Your task to perform on an android device: turn off smart reply in the gmail app Image 0: 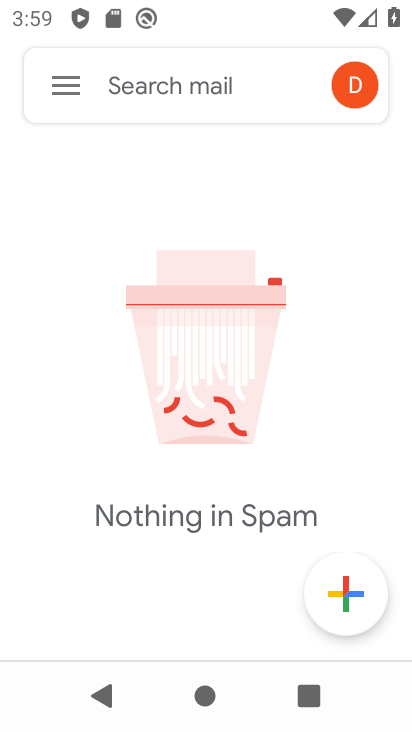
Step 0: press home button
Your task to perform on an android device: turn off smart reply in the gmail app Image 1: 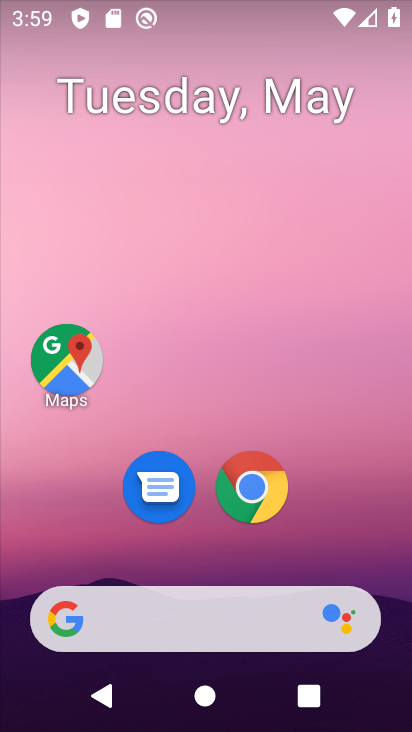
Step 1: drag from (310, 539) to (324, 142)
Your task to perform on an android device: turn off smart reply in the gmail app Image 2: 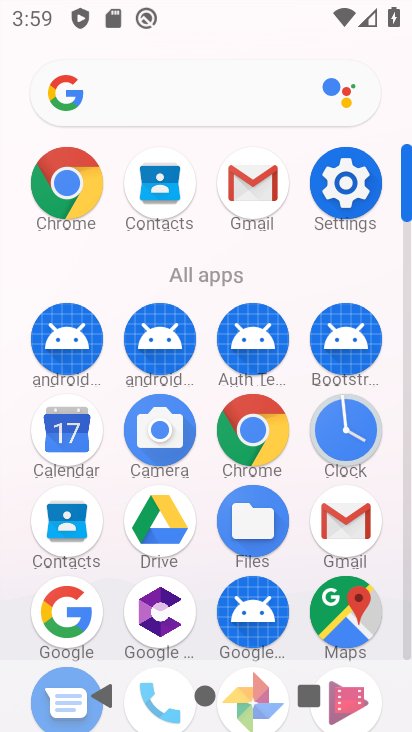
Step 2: click (242, 197)
Your task to perform on an android device: turn off smart reply in the gmail app Image 3: 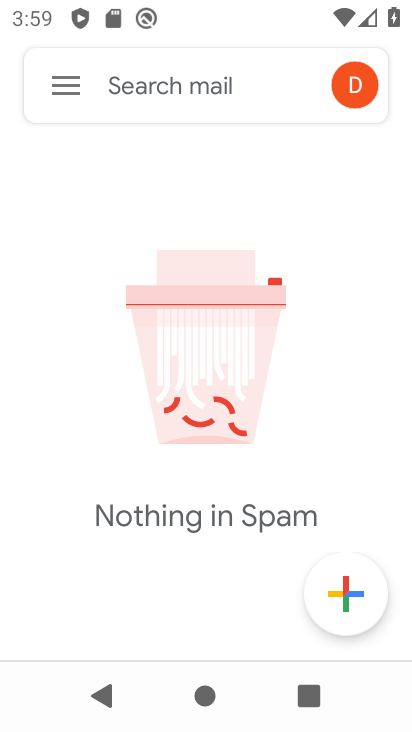
Step 3: click (60, 91)
Your task to perform on an android device: turn off smart reply in the gmail app Image 4: 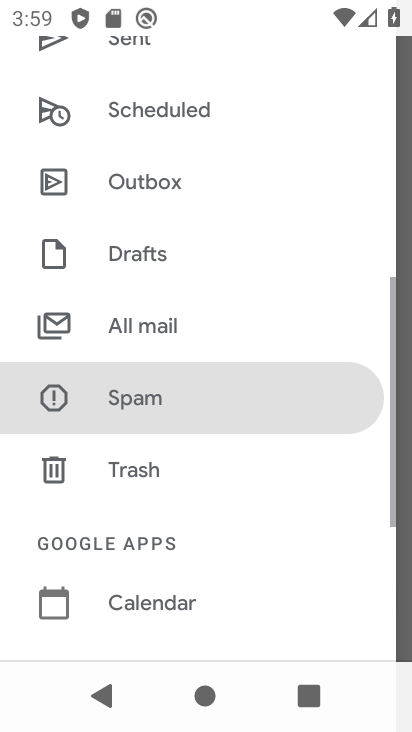
Step 4: drag from (178, 544) to (229, 138)
Your task to perform on an android device: turn off smart reply in the gmail app Image 5: 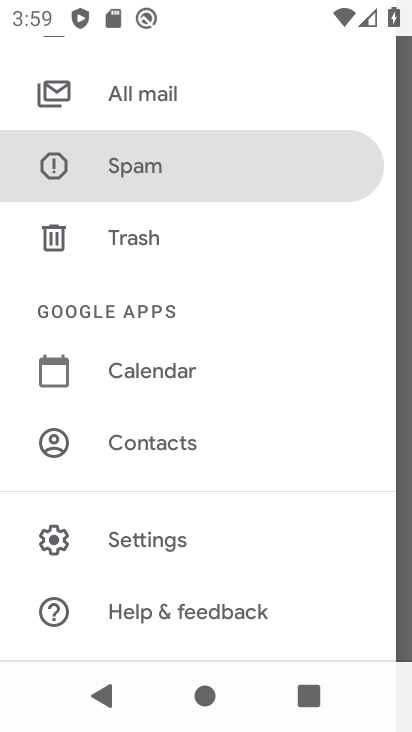
Step 5: click (151, 535)
Your task to perform on an android device: turn off smart reply in the gmail app Image 6: 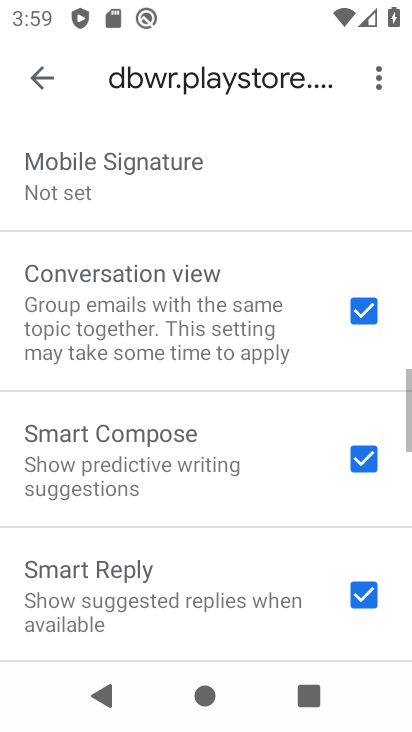
Step 6: drag from (220, 246) to (229, 627)
Your task to perform on an android device: turn off smart reply in the gmail app Image 7: 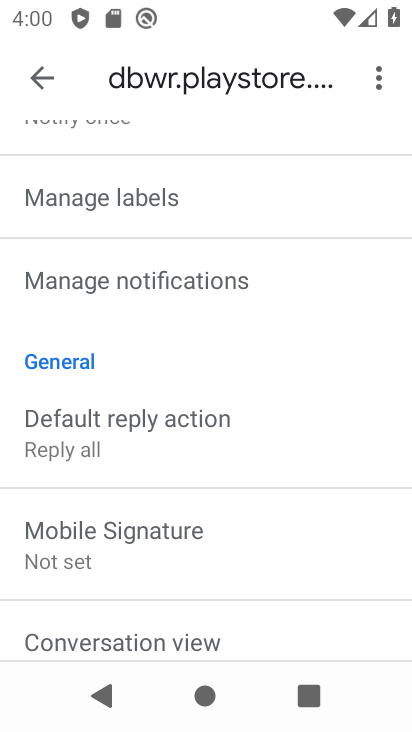
Step 7: drag from (240, 530) to (266, 187)
Your task to perform on an android device: turn off smart reply in the gmail app Image 8: 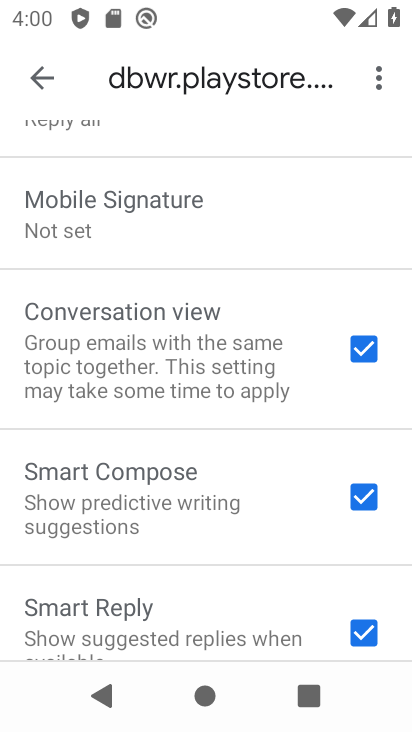
Step 8: click (359, 629)
Your task to perform on an android device: turn off smart reply in the gmail app Image 9: 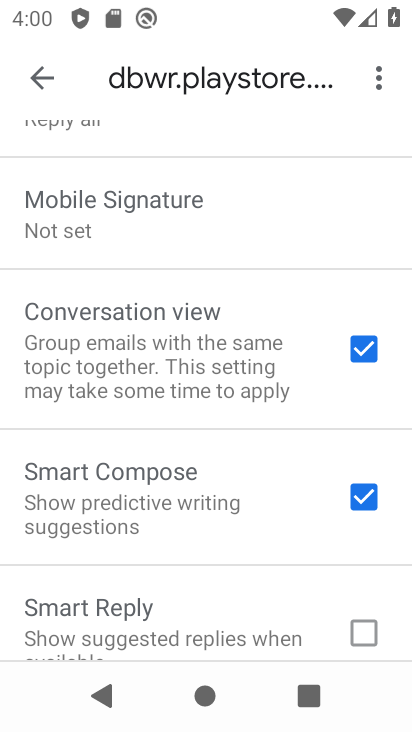
Step 9: task complete